Your task to perform on an android device: Open calendar and show me the second week of next month Image 0: 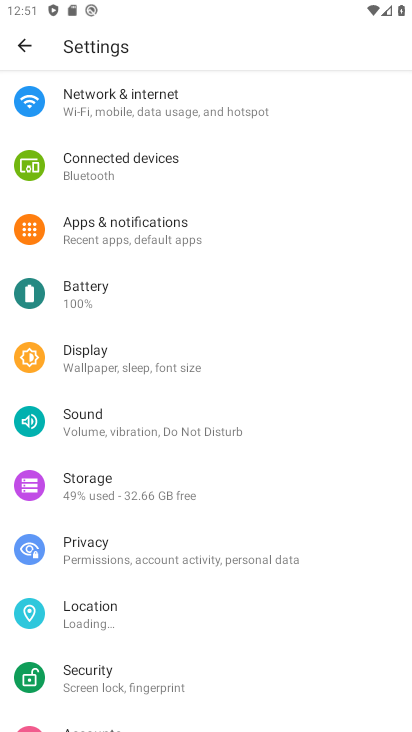
Step 0: press home button
Your task to perform on an android device: Open calendar and show me the second week of next month Image 1: 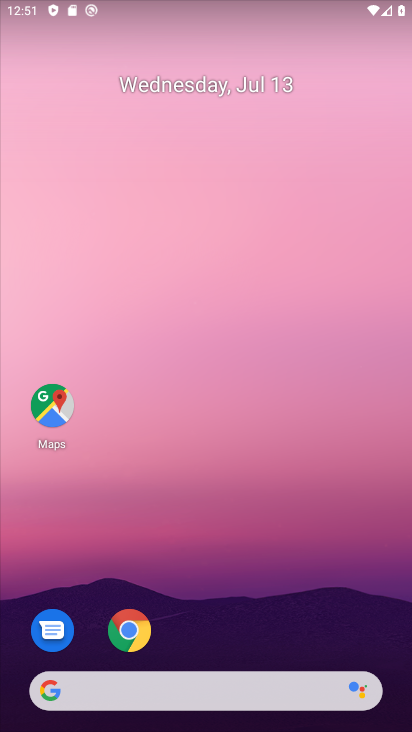
Step 1: drag from (319, 496) to (355, 70)
Your task to perform on an android device: Open calendar and show me the second week of next month Image 2: 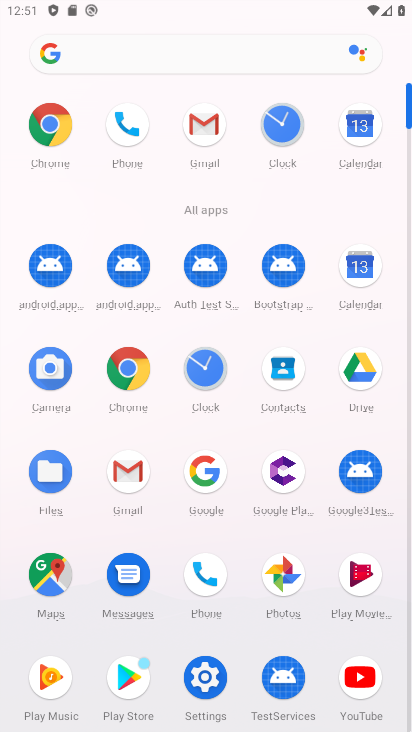
Step 2: click (361, 268)
Your task to perform on an android device: Open calendar and show me the second week of next month Image 3: 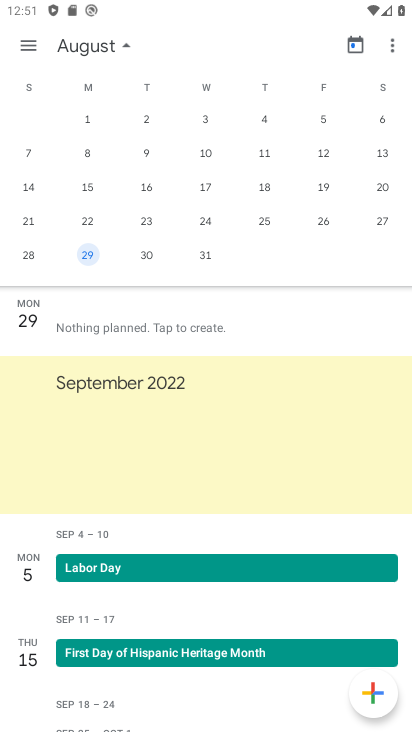
Step 3: drag from (378, 206) to (15, 269)
Your task to perform on an android device: Open calendar and show me the second week of next month Image 4: 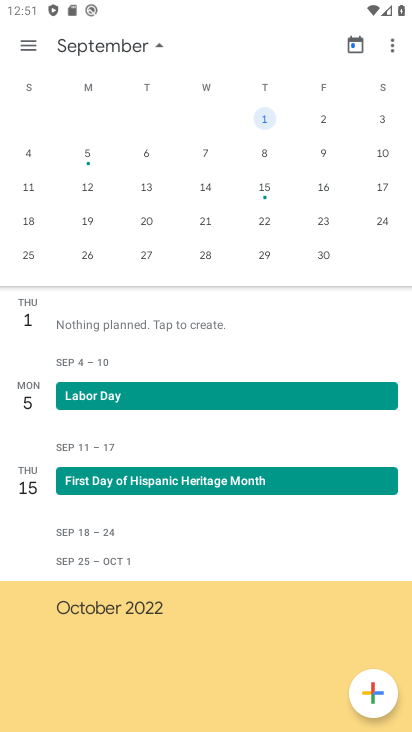
Step 4: click (209, 188)
Your task to perform on an android device: Open calendar and show me the second week of next month Image 5: 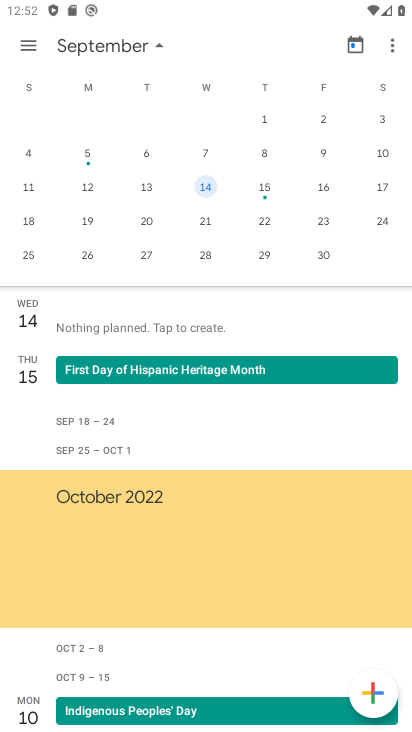
Step 5: task complete